Your task to perform on an android device: set an alarm Image 0: 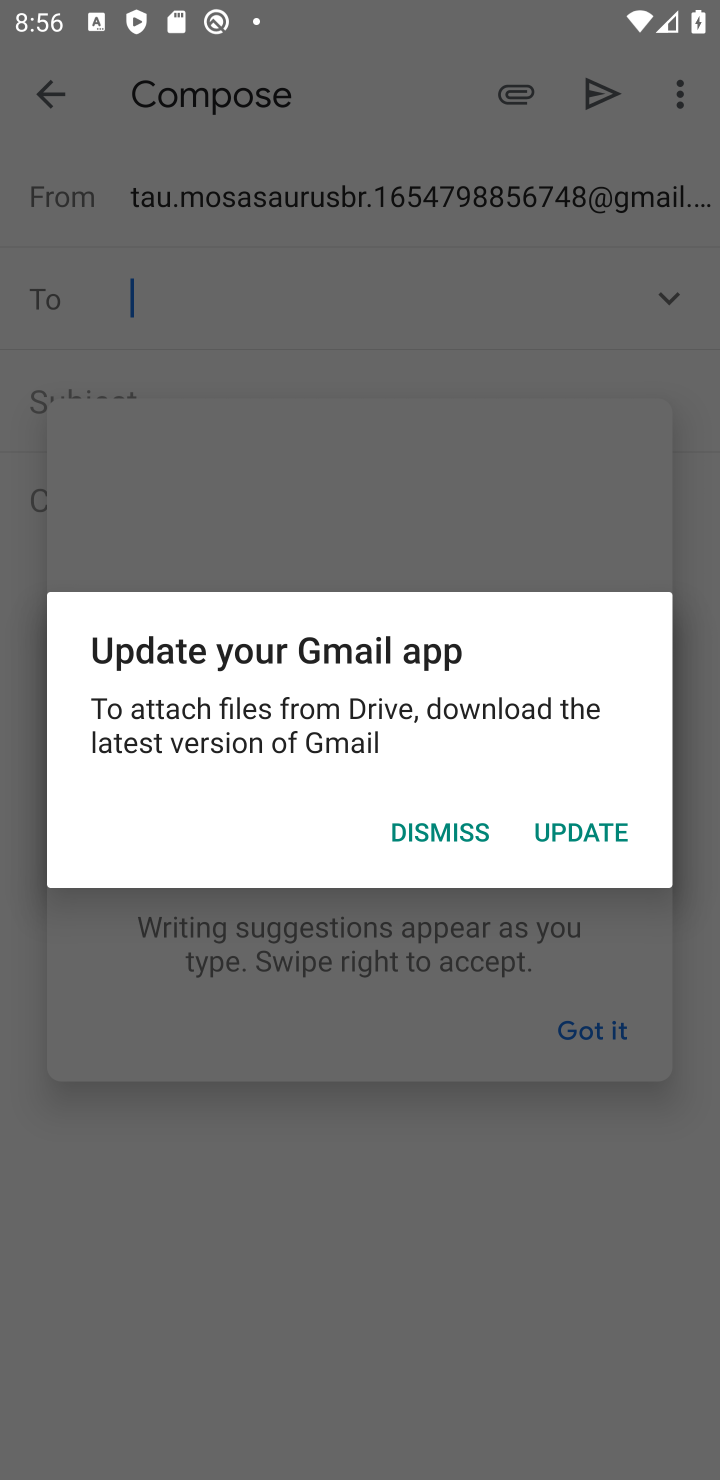
Step 0: press home button
Your task to perform on an android device: set an alarm Image 1: 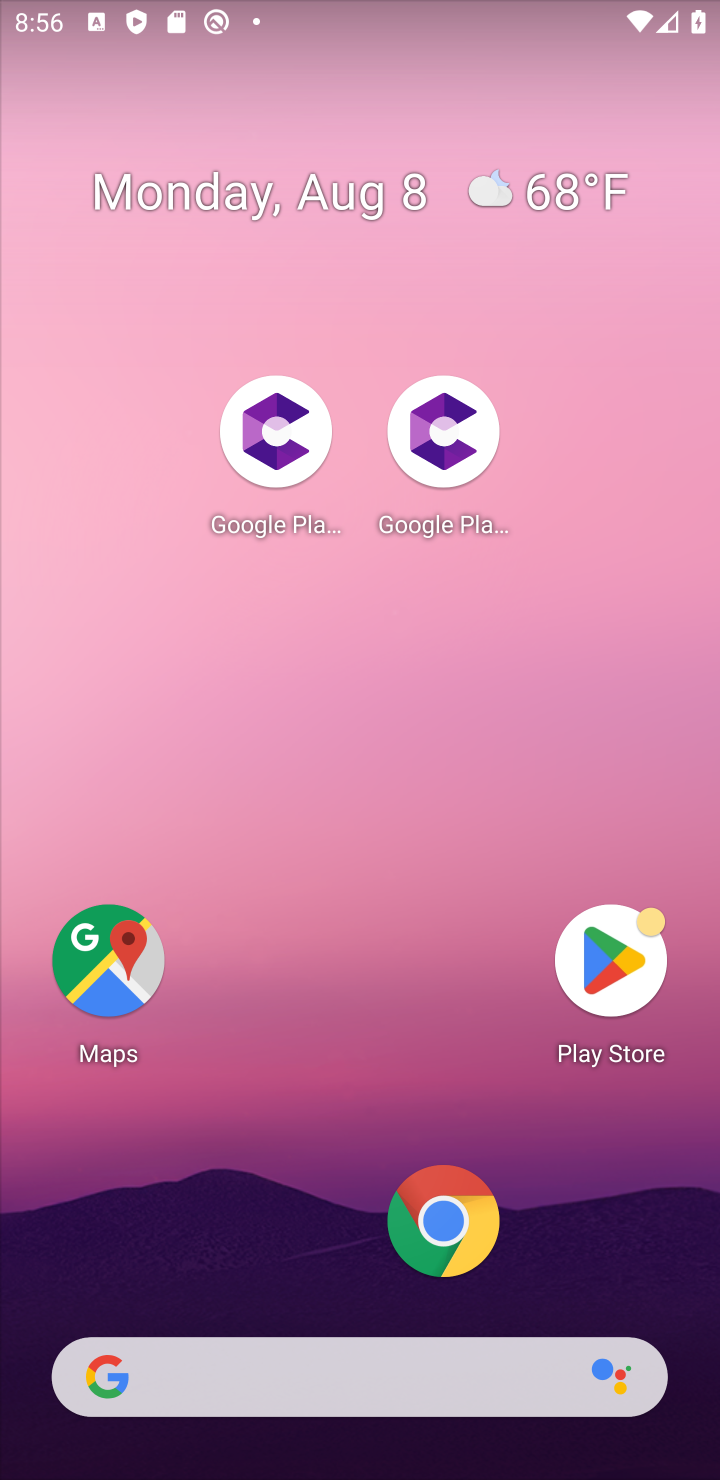
Step 1: drag from (237, 1256) to (392, 163)
Your task to perform on an android device: set an alarm Image 2: 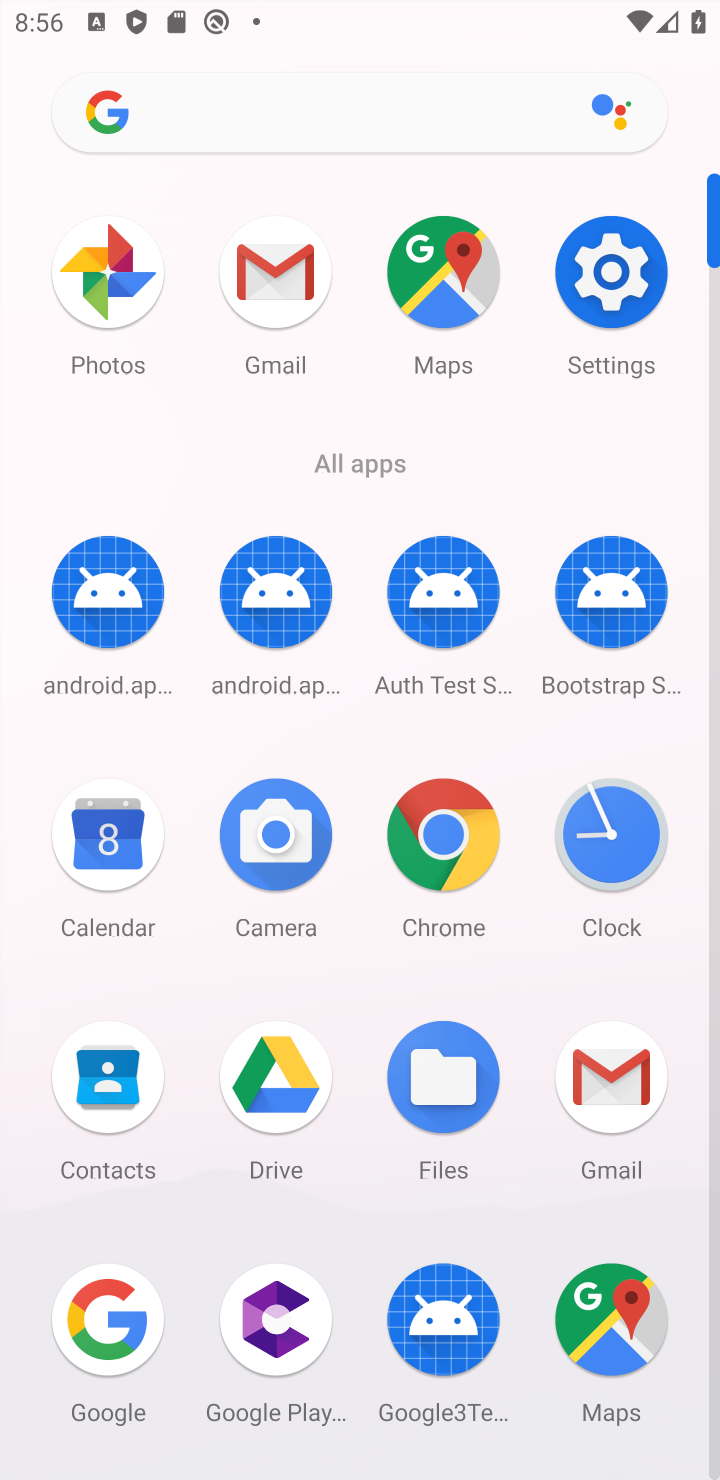
Step 2: click (656, 841)
Your task to perform on an android device: set an alarm Image 3: 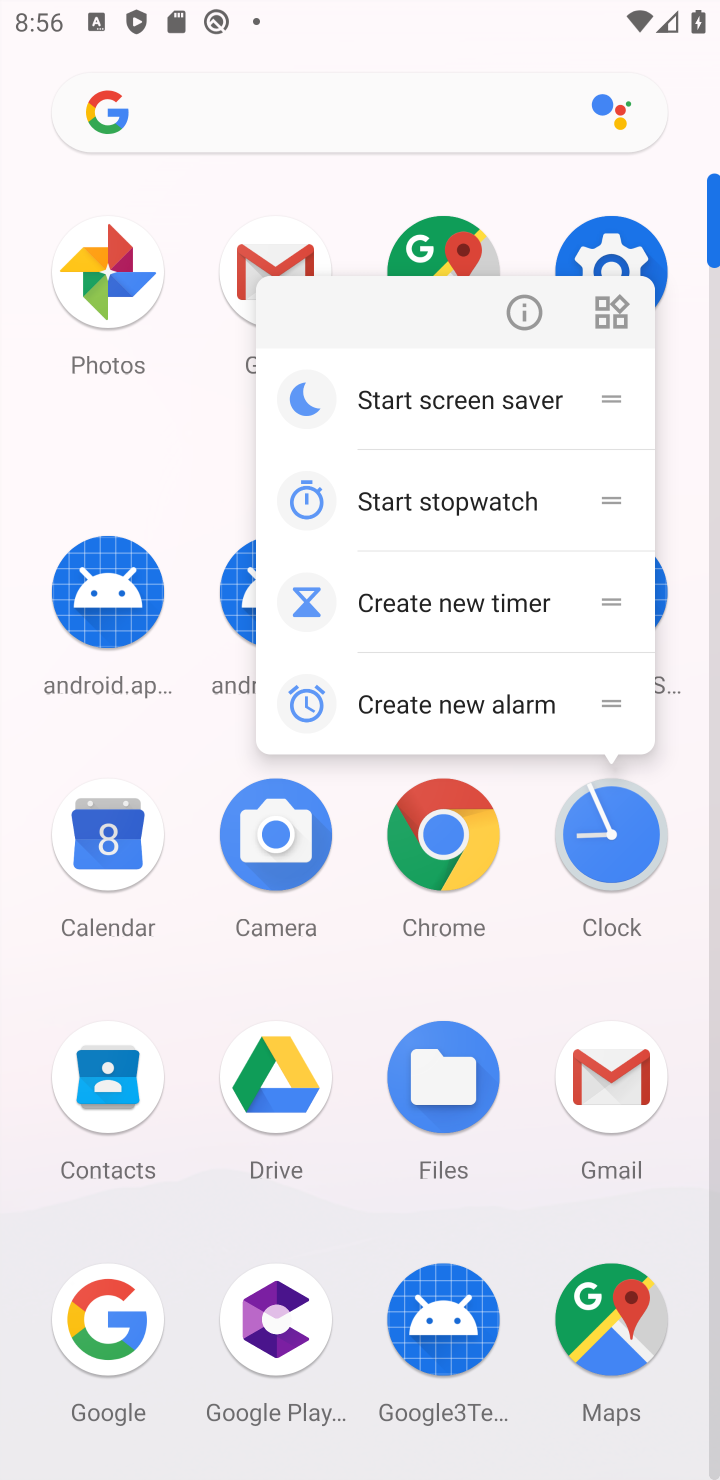
Step 3: click (621, 846)
Your task to perform on an android device: set an alarm Image 4: 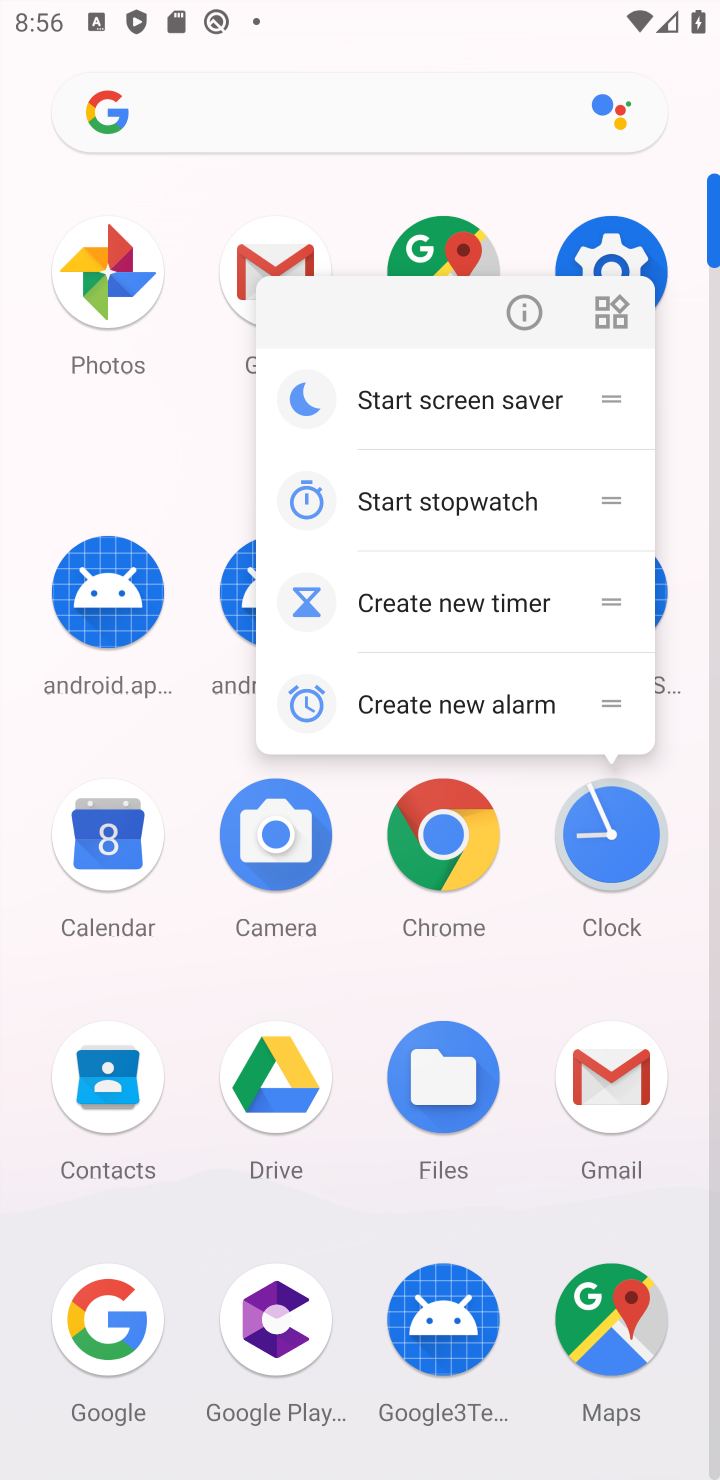
Step 4: click (621, 846)
Your task to perform on an android device: set an alarm Image 5: 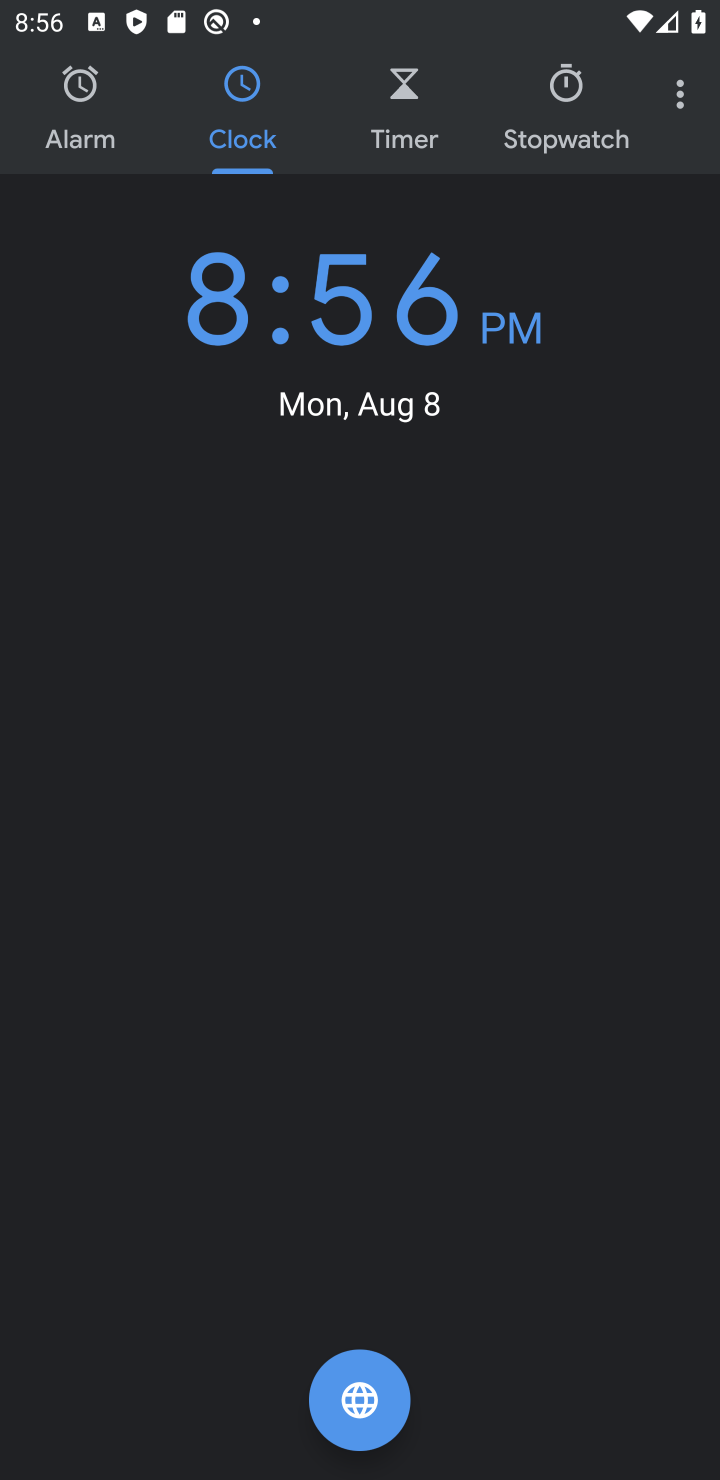
Step 5: click (67, 96)
Your task to perform on an android device: set an alarm Image 6: 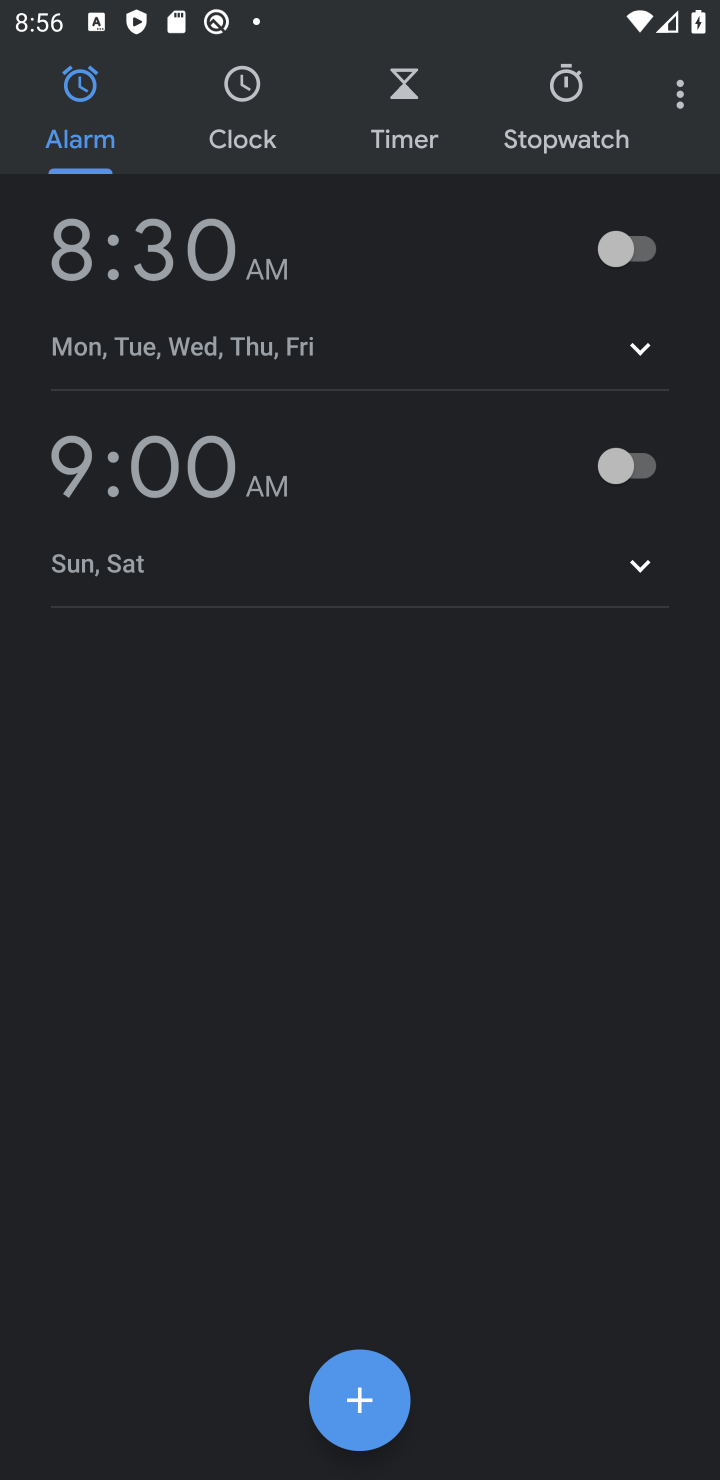
Step 6: click (615, 252)
Your task to perform on an android device: set an alarm Image 7: 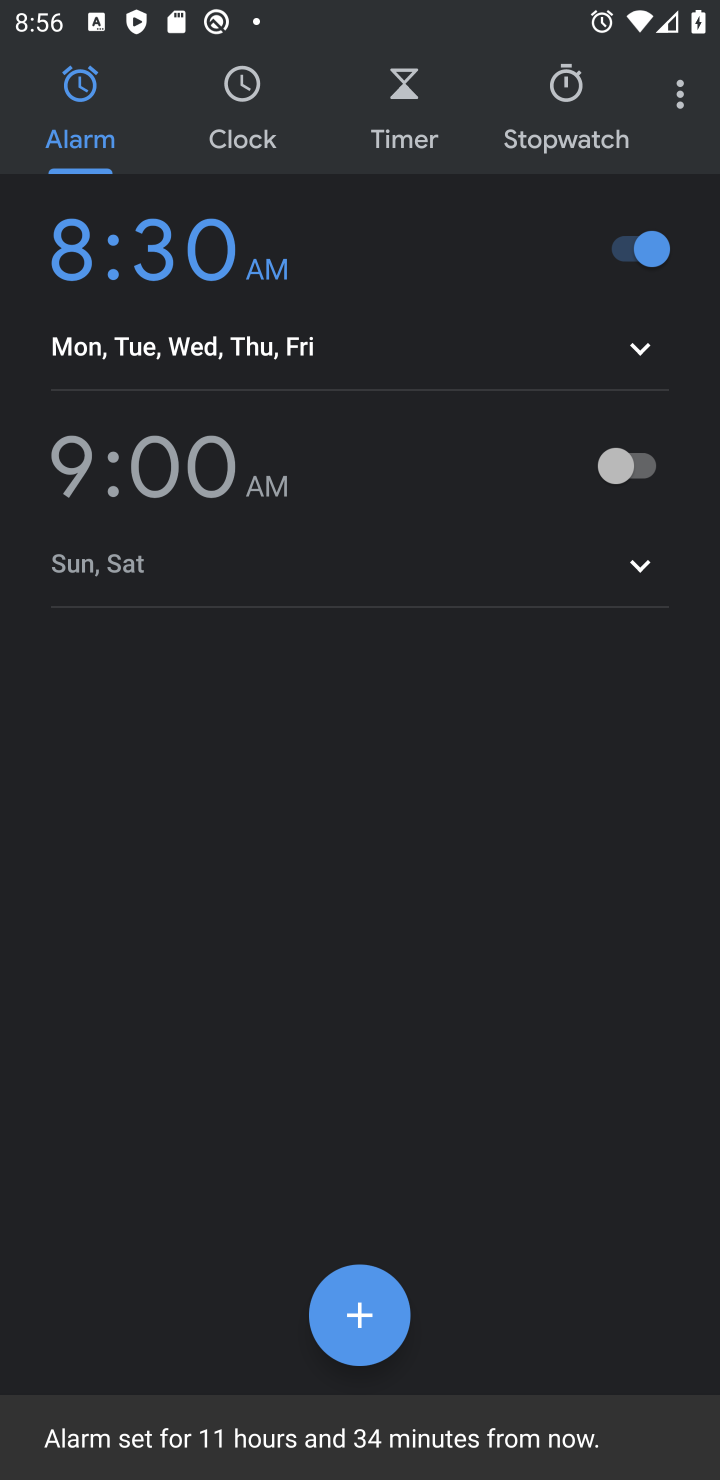
Step 7: task complete